Your task to perform on an android device: find which apps use the phone's location Image 0: 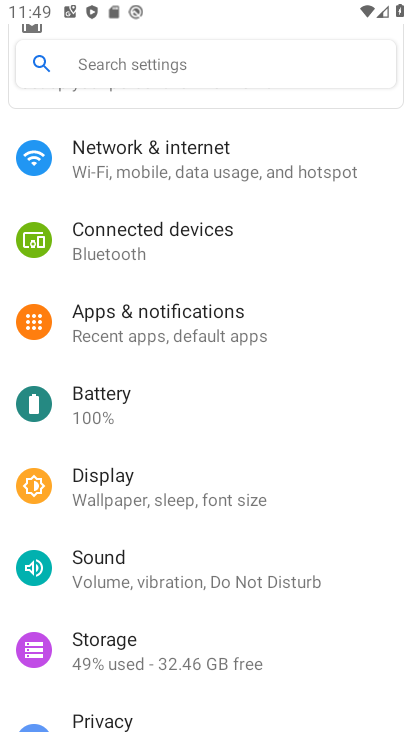
Step 0: press home button
Your task to perform on an android device: find which apps use the phone's location Image 1: 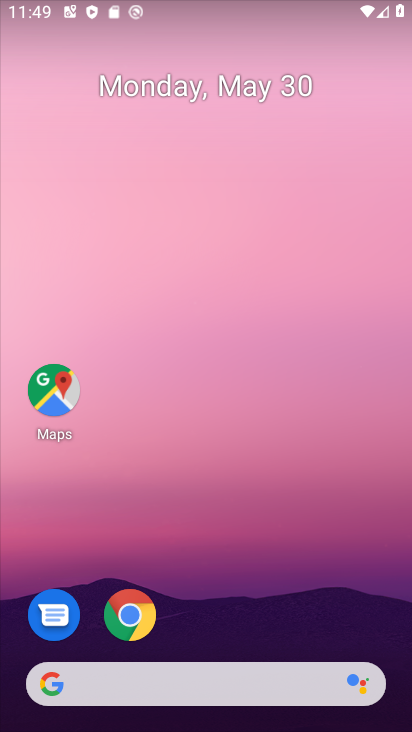
Step 1: drag from (363, 593) to (368, 140)
Your task to perform on an android device: find which apps use the phone's location Image 2: 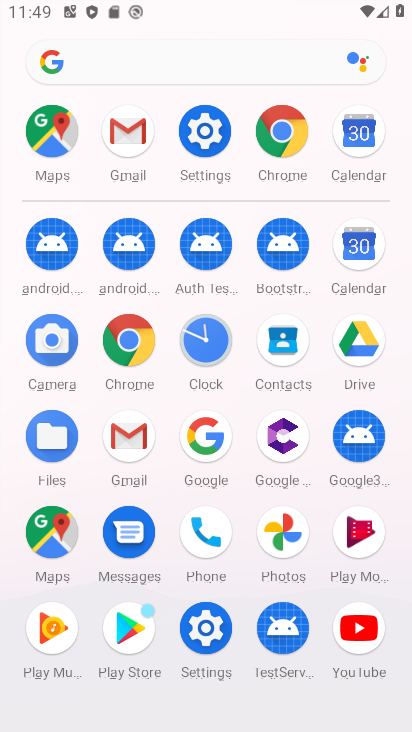
Step 2: click (203, 637)
Your task to perform on an android device: find which apps use the phone's location Image 3: 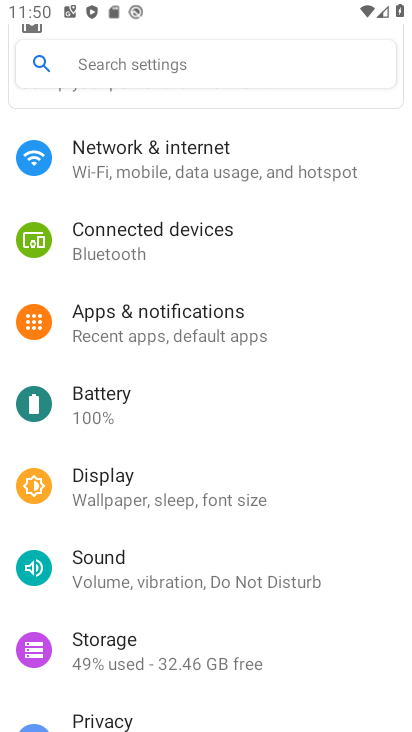
Step 3: drag from (360, 526) to (360, 412)
Your task to perform on an android device: find which apps use the phone's location Image 4: 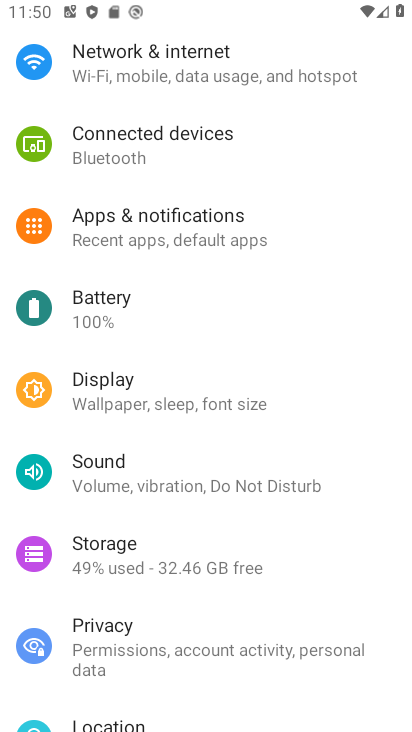
Step 4: drag from (363, 551) to (365, 431)
Your task to perform on an android device: find which apps use the phone's location Image 5: 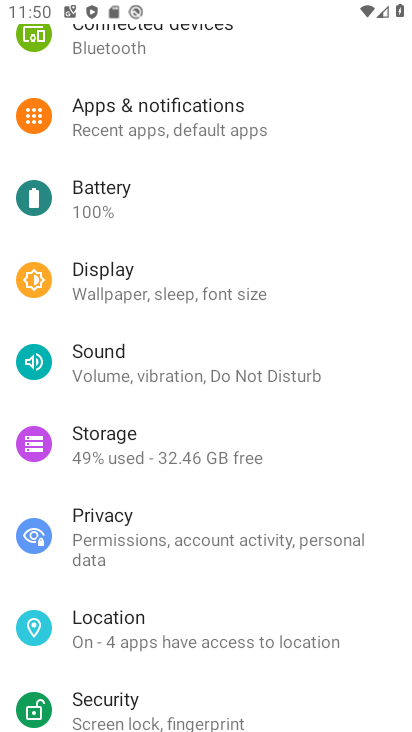
Step 5: drag from (354, 594) to (361, 462)
Your task to perform on an android device: find which apps use the phone's location Image 6: 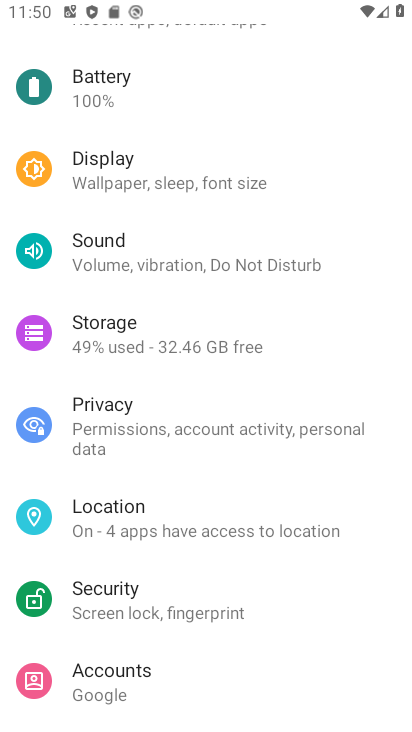
Step 6: drag from (363, 616) to (368, 477)
Your task to perform on an android device: find which apps use the phone's location Image 7: 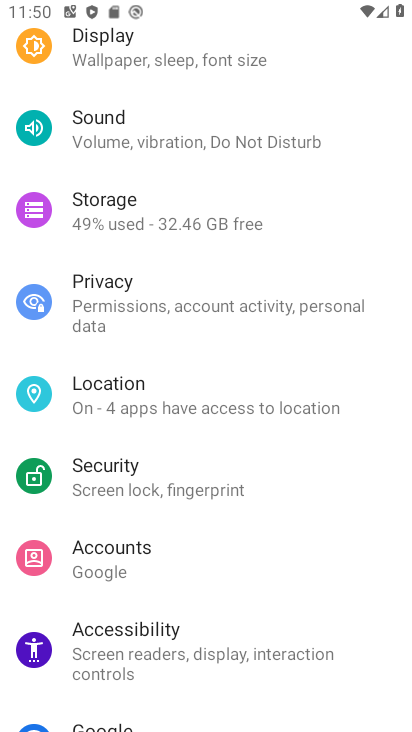
Step 7: drag from (359, 614) to (369, 474)
Your task to perform on an android device: find which apps use the phone's location Image 8: 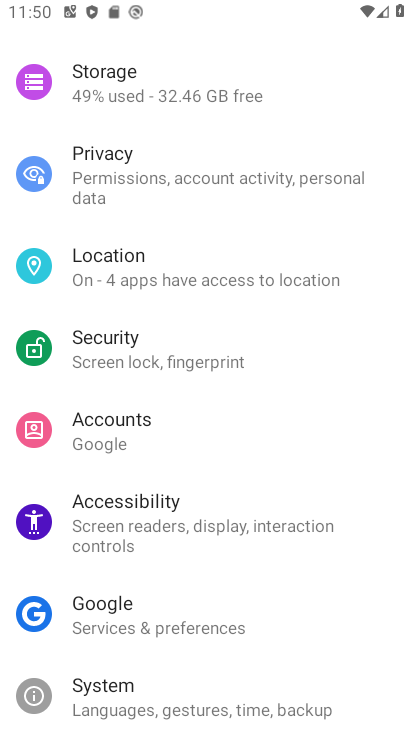
Step 8: drag from (364, 632) to (361, 490)
Your task to perform on an android device: find which apps use the phone's location Image 9: 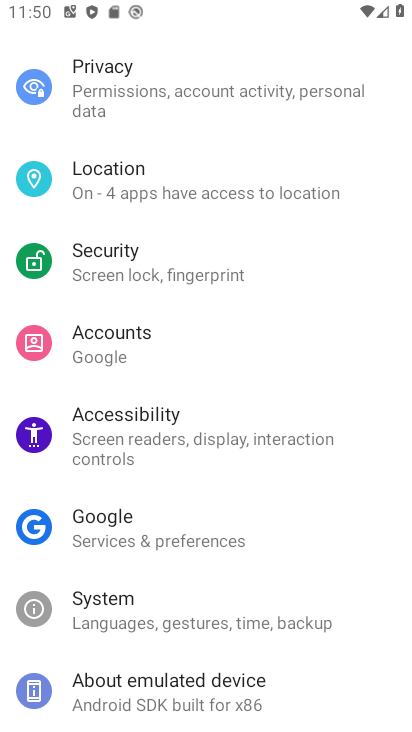
Step 9: drag from (365, 643) to (359, 434)
Your task to perform on an android device: find which apps use the phone's location Image 10: 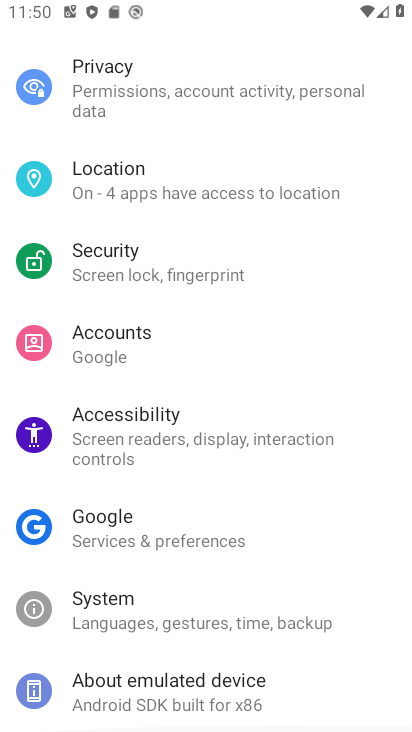
Step 10: drag from (358, 358) to (352, 468)
Your task to perform on an android device: find which apps use the phone's location Image 11: 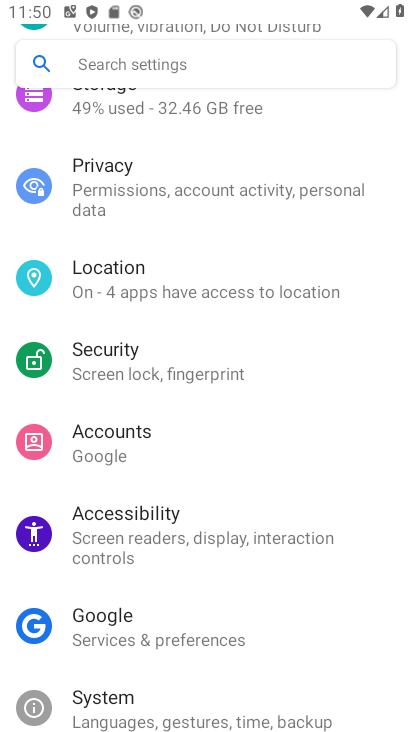
Step 11: drag from (353, 373) to (350, 457)
Your task to perform on an android device: find which apps use the phone's location Image 12: 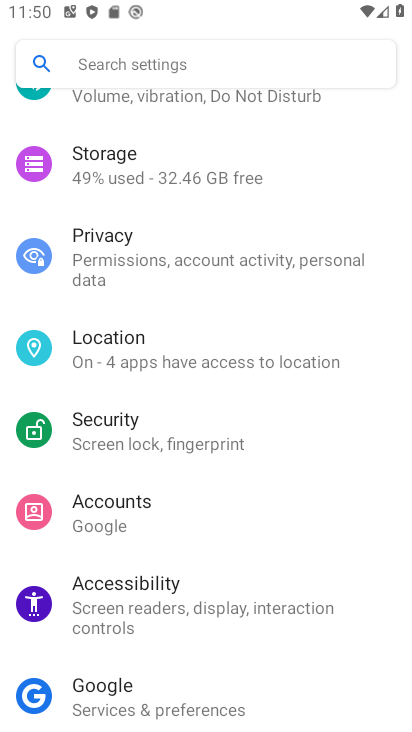
Step 12: drag from (360, 331) to (348, 439)
Your task to perform on an android device: find which apps use the phone's location Image 13: 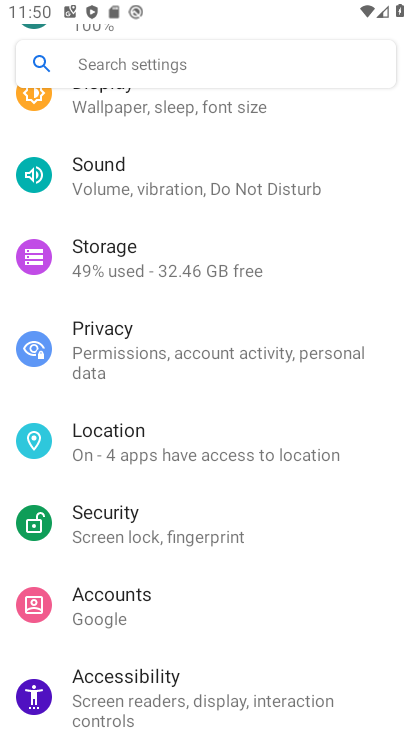
Step 13: click (298, 465)
Your task to perform on an android device: find which apps use the phone's location Image 14: 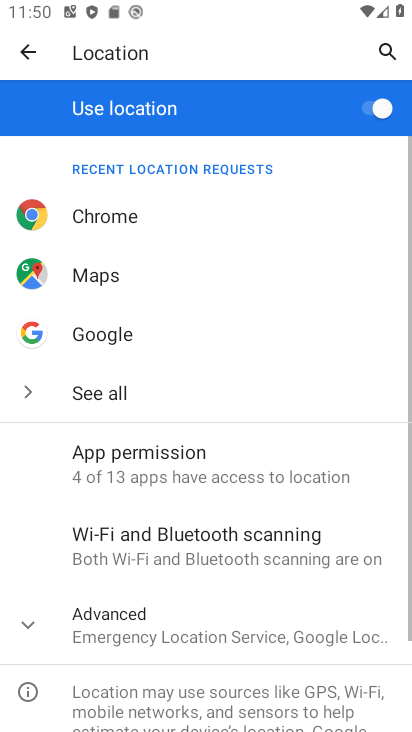
Step 14: click (284, 475)
Your task to perform on an android device: find which apps use the phone's location Image 15: 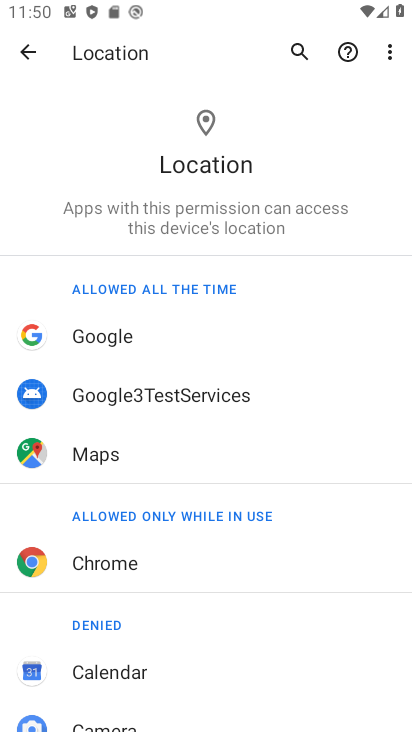
Step 15: drag from (284, 582) to (283, 488)
Your task to perform on an android device: find which apps use the phone's location Image 16: 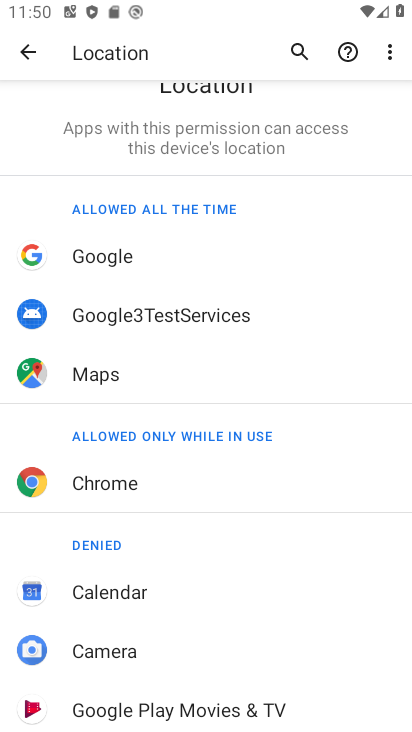
Step 16: drag from (264, 599) to (264, 488)
Your task to perform on an android device: find which apps use the phone's location Image 17: 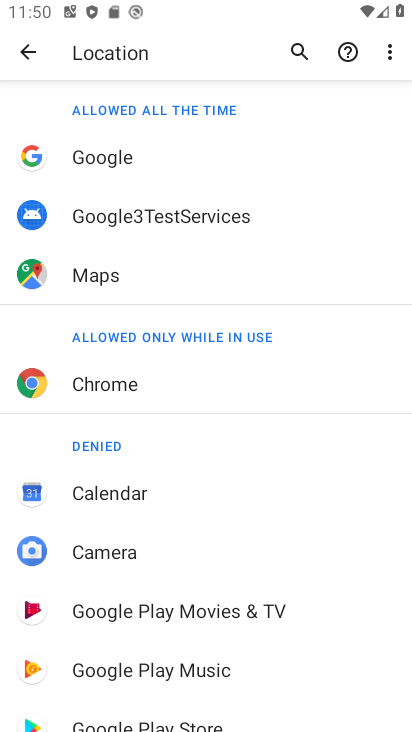
Step 17: drag from (264, 639) to (265, 495)
Your task to perform on an android device: find which apps use the phone's location Image 18: 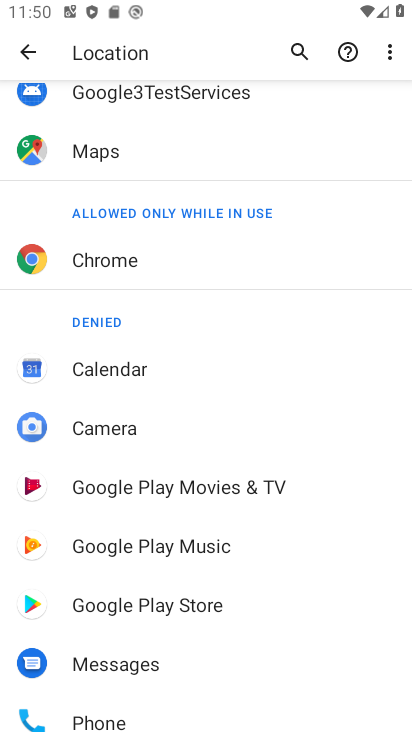
Step 18: drag from (257, 632) to (260, 518)
Your task to perform on an android device: find which apps use the phone's location Image 19: 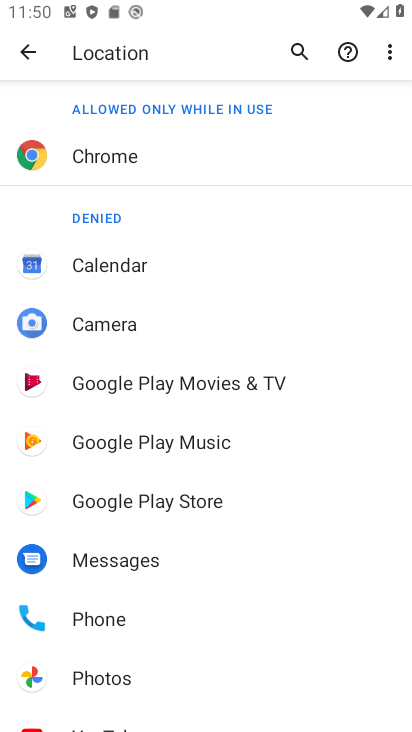
Step 19: drag from (253, 647) to (252, 526)
Your task to perform on an android device: find which apps use the phone's location Image 20: 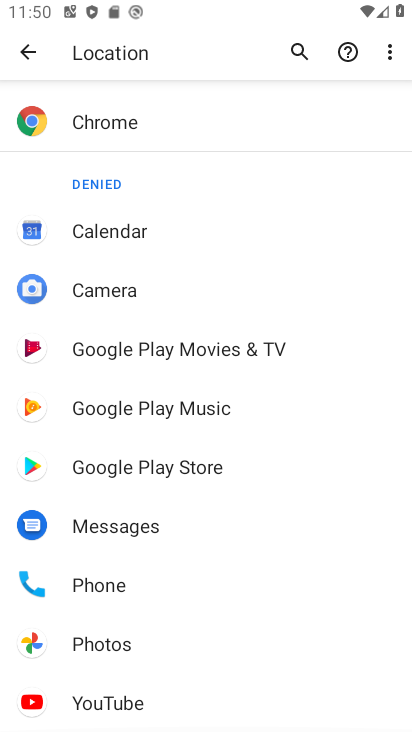
Step 20: click (146, 660)
Your task to perform on an android device: find which apps use the phone's location Image 21: 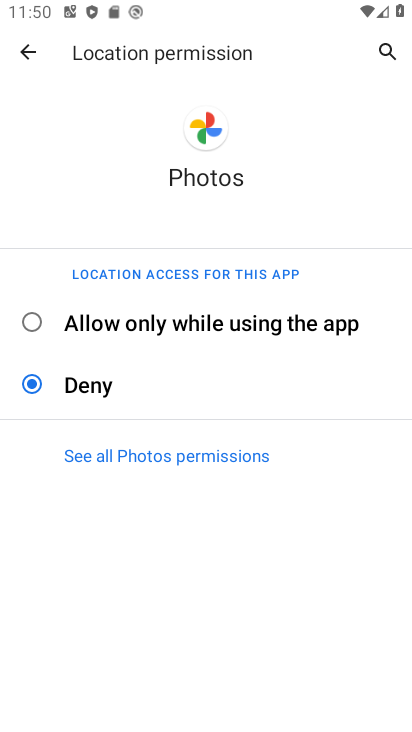
Step 21: click (166, 322)
Your task to perform on an android device: find which apps use the phone's location Image 22: 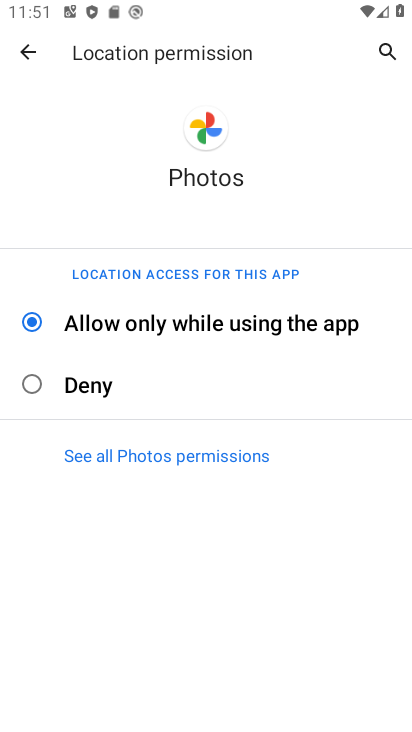
Step 22: task complete